Your task to perform on an android device: add a label to a message in the gmail app Image 0: 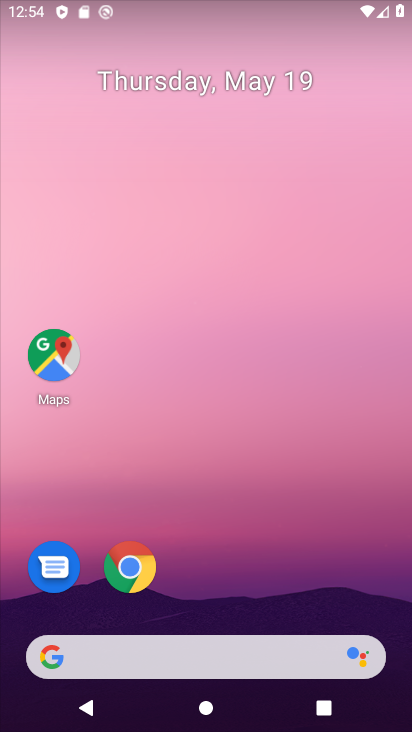
Step 0: press home button
Your task to perform on an android device: add a label to a message in the gmail app Image 1: 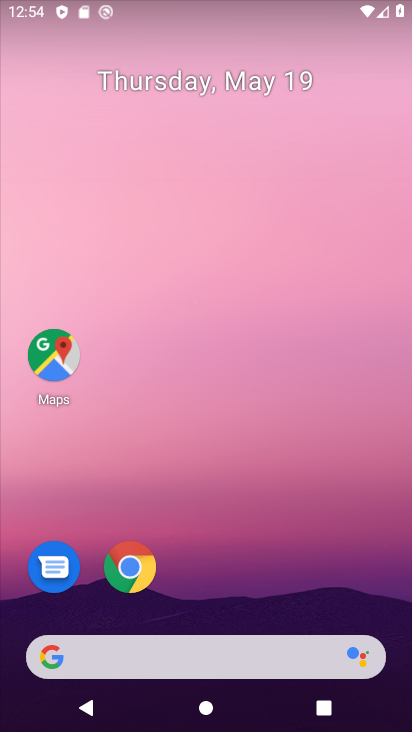
Step 1: drag from (152, 633) to (222, 351)
Your task to perform on an android device: add a label to a message in the gmail app Image 2: 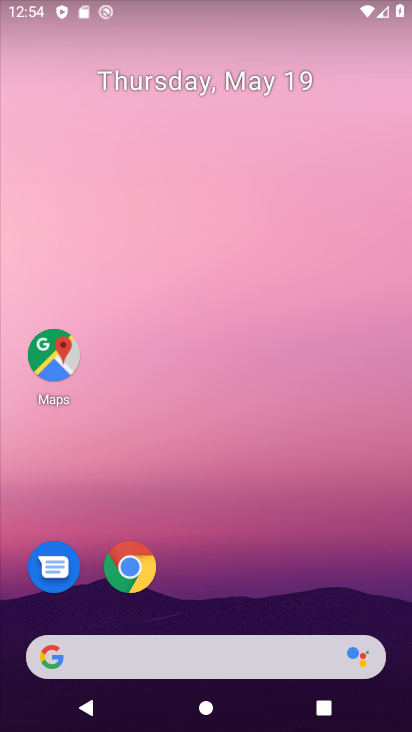
Step 2: drag from (171, 659) to (268, 281)
Your task to perform on an android device: add a label to a message in the gmail app Image 3: 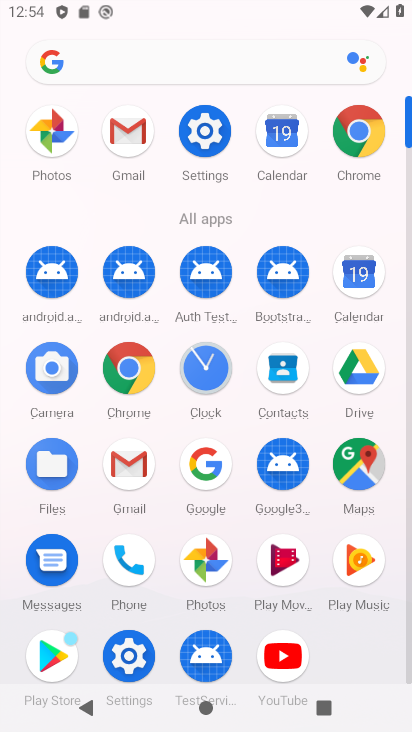
Step 3: click (132, 144)
Your task to perform on an android device: add a label to a message in the gmail app Image 4: 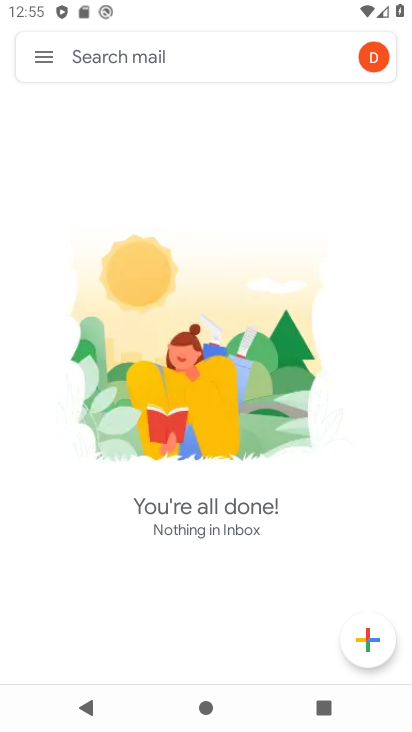
Step 4: task complete